Your task to perform on an android device: change the upload size in google photos Image 0: 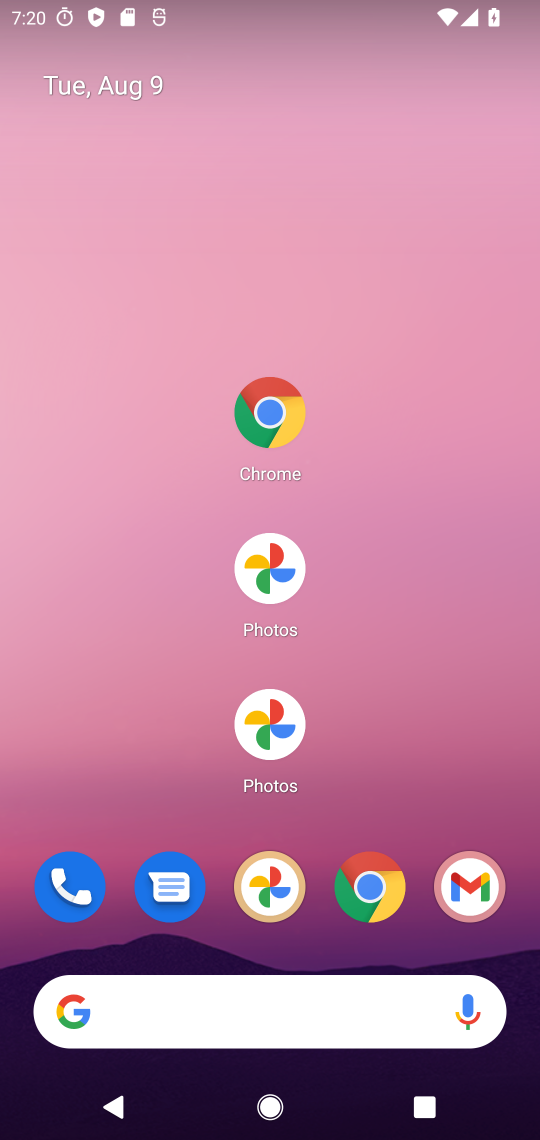
Step 0: drag from (253, 964) to (243, 195)
Your task to perform on an android device: change the upload size in google photos Image 1: 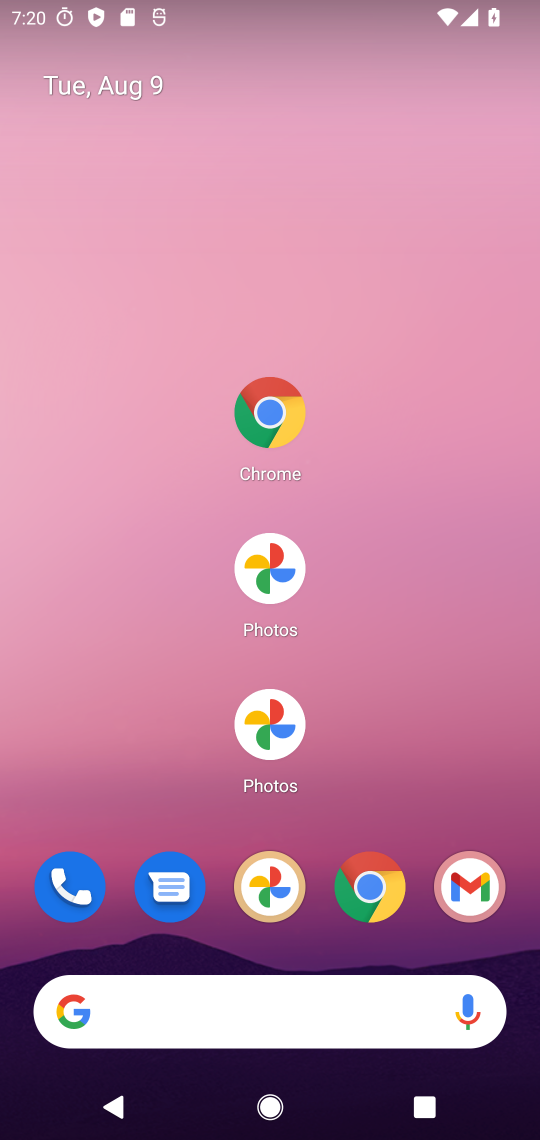
Step 1: drag from (444, 912) to (355, 192)
Your task to perform on an android device: change the upload size in google photos Image 2: 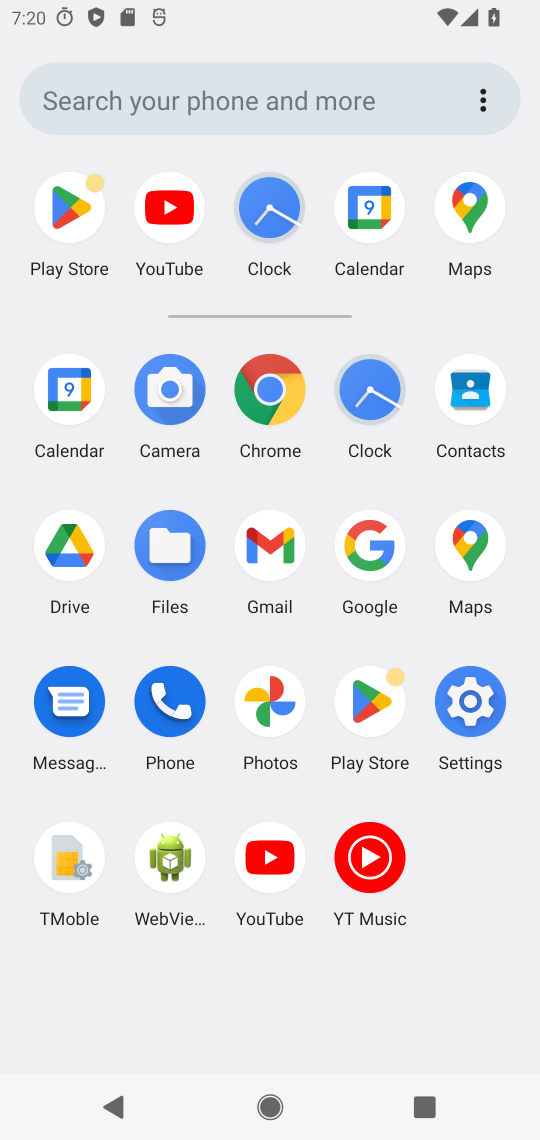
Step 2: click (277, 711)
Your task to perform on an android device: change the upload size in google photos Image 3: 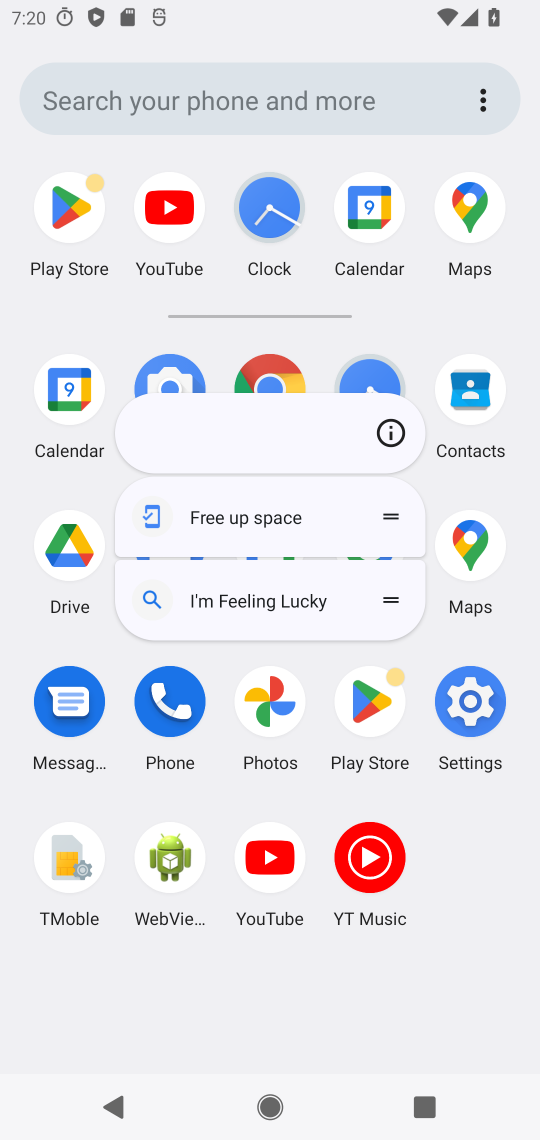
Step 3: click (270, 711)
Your task to perform on an android device: change the upload size in google photos Image 4: 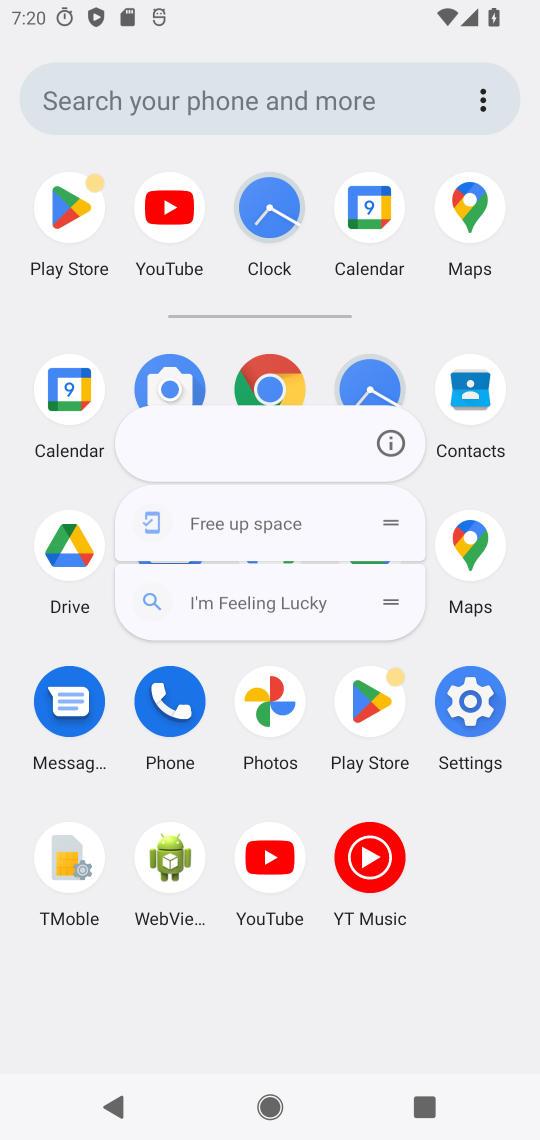
Step 4: click (270, 713)
Your task to perform on an android device: change the upload size in google photos Image 5: 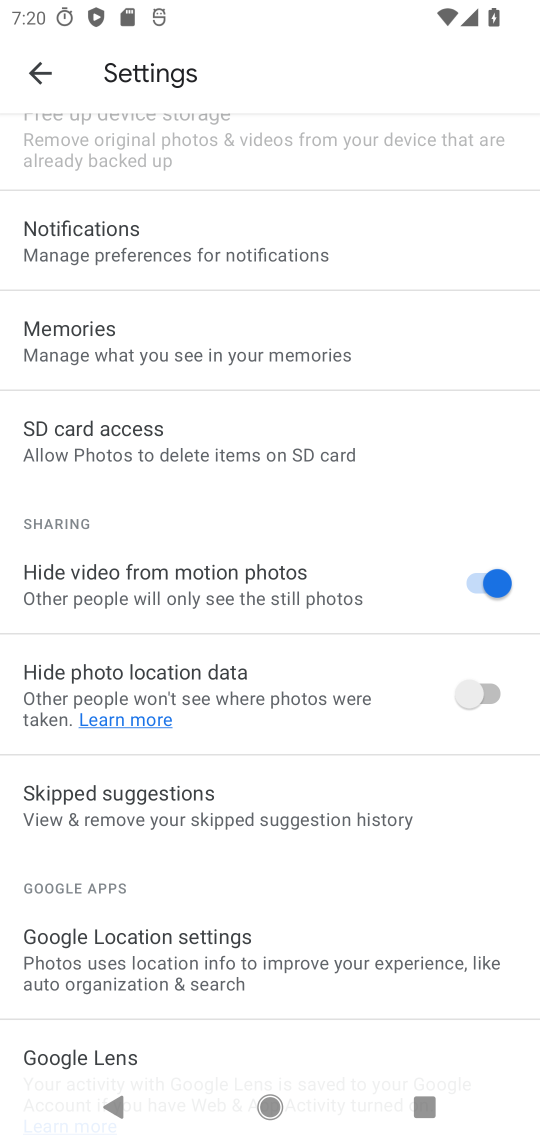
Step 5: drag from (128, 403) to (180, 803)
Your task to perform on an android device: change the upload size in google photos Image 6: 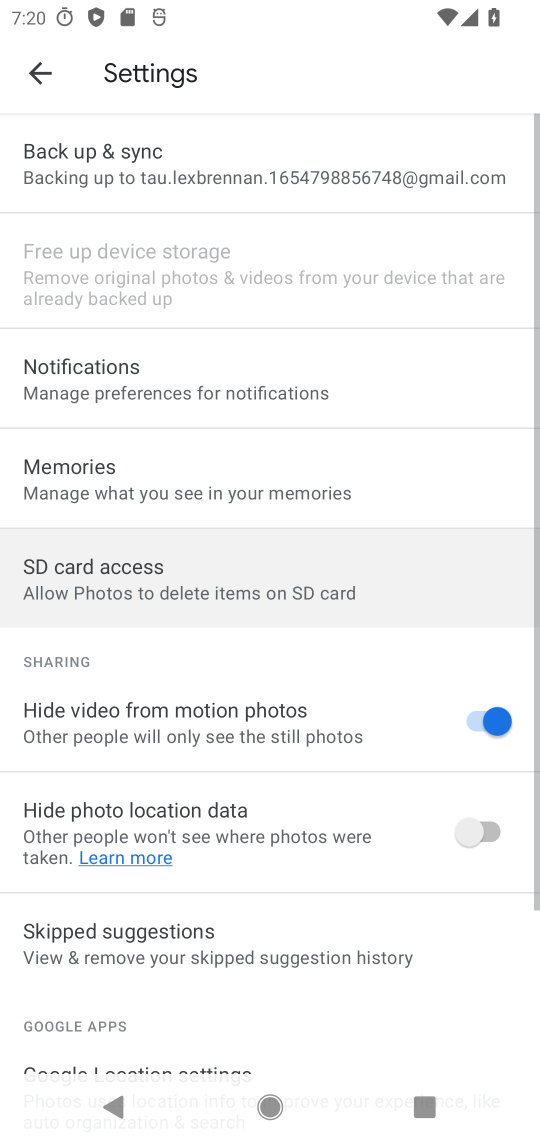
Step 6: drag from (184, 951) to (221, 882)
Your task to perform on an android device: change the upload size in google photos Image 7: 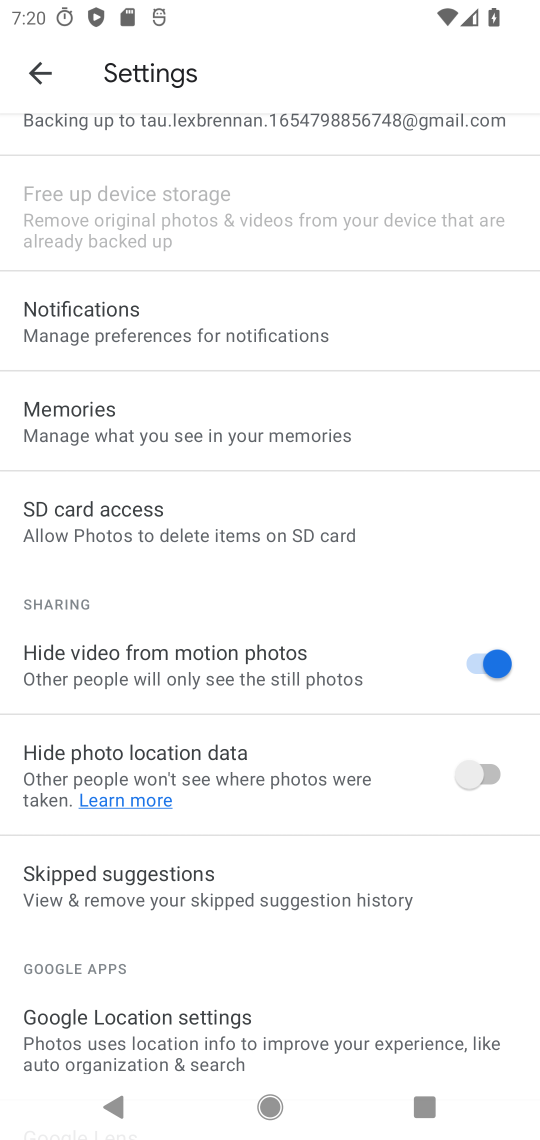
Step 7: drag from (158, 440) to (241, 942)
Your task to perform on an android device: change the upload size in google photos Image 8: 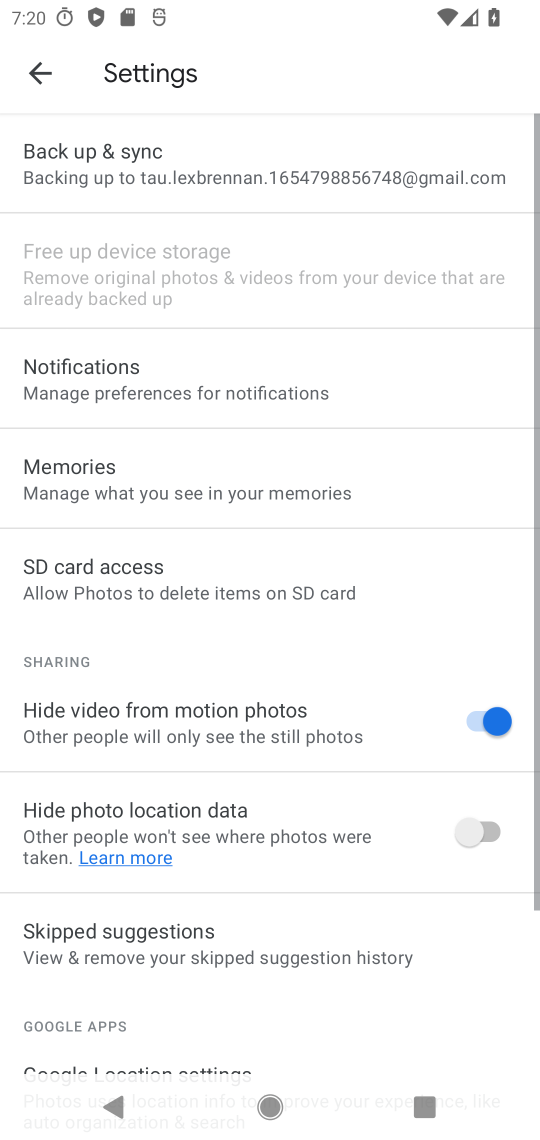
Step 8: drag from (147, 711) to (205, 963)
Your task to perform on an android device: change the upload size in google photos Image 9: 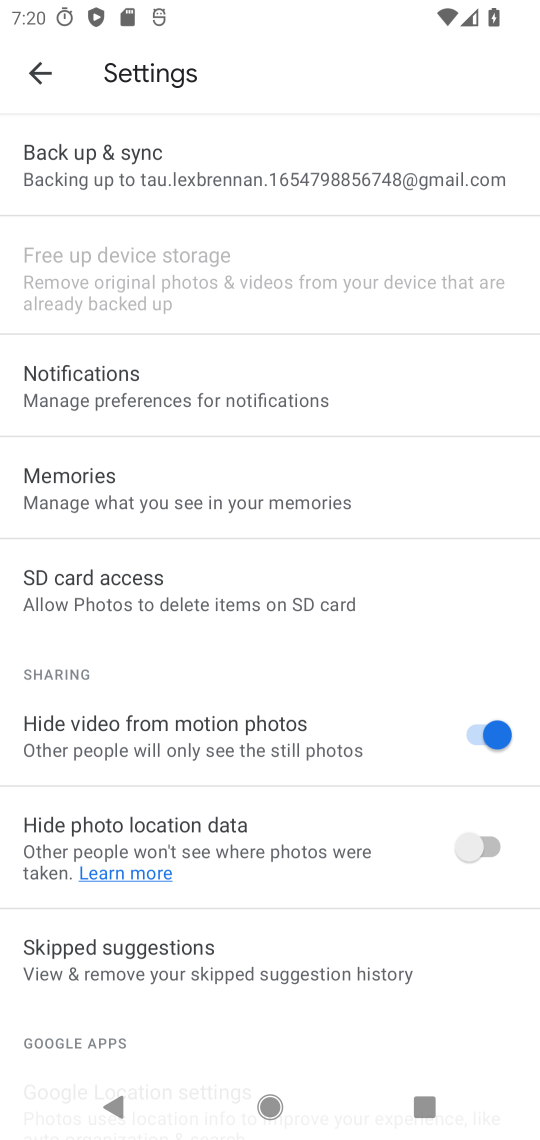
Step 9: drag from (195, 975) to (242, 1030)
Your task to perform on an android device: change the upload size in google photos Image 10: 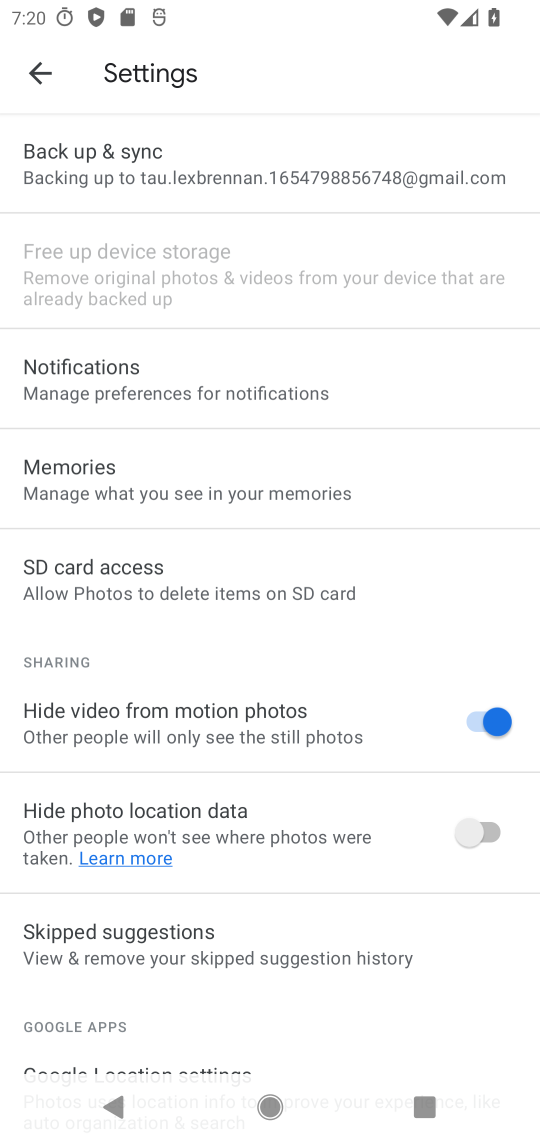
Step 10: drag from (184, 814) to (184, 893)
Your task to perform on an android device: change the upload size in google photos Image 11: 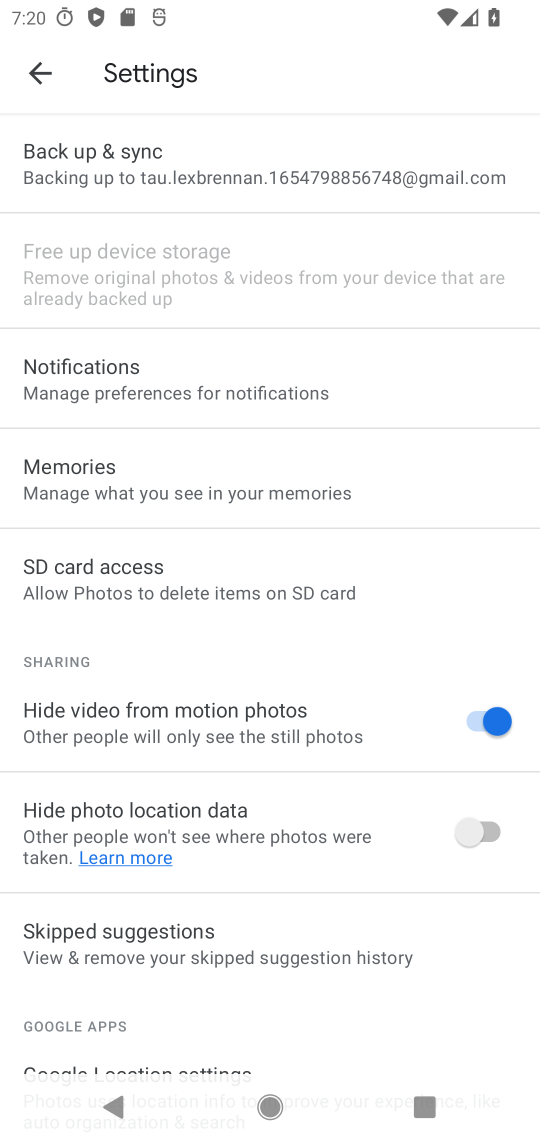
Step 11: click (115, 165)
Your task to perform on an android device: change the upload size in google photos Image 12: 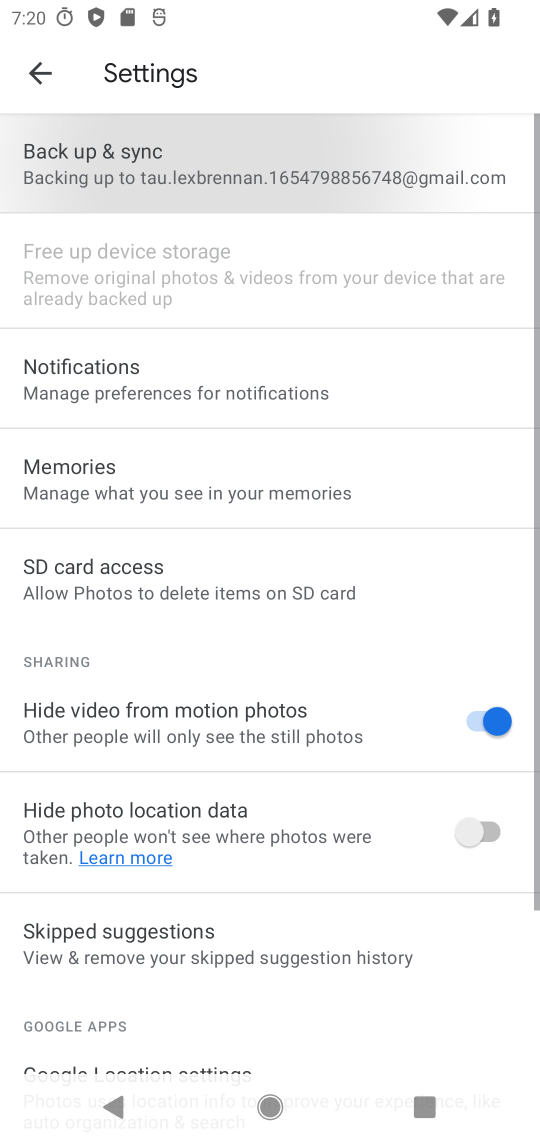
Step 12: click (123, 167)
Your task to perform on an android device: change the upload size in google photos Image 13: 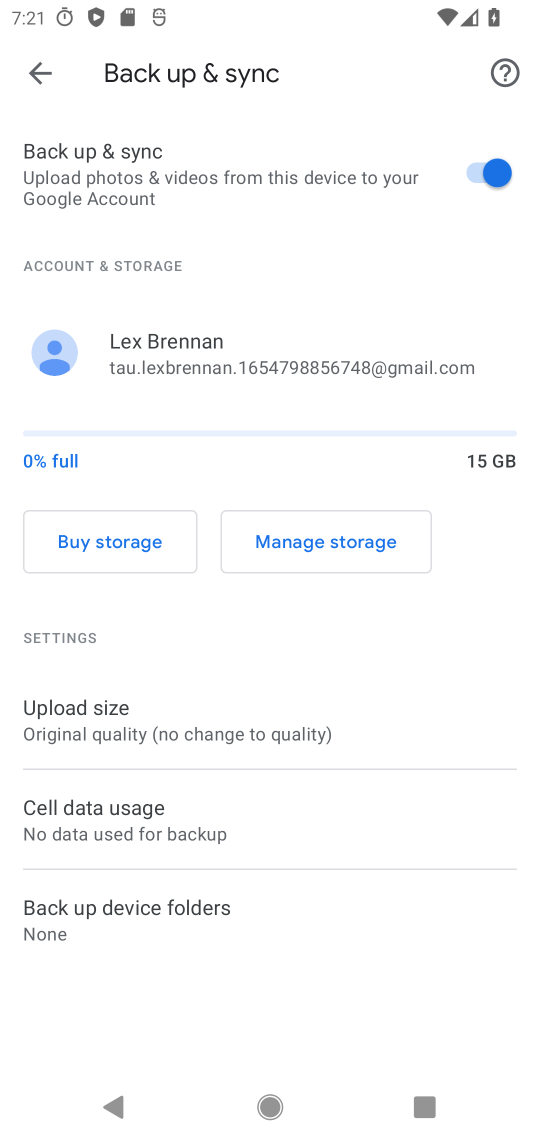
Step 13: click (70, 721)
Your task to perform on an android device: change the upload size in google photos Image 14: 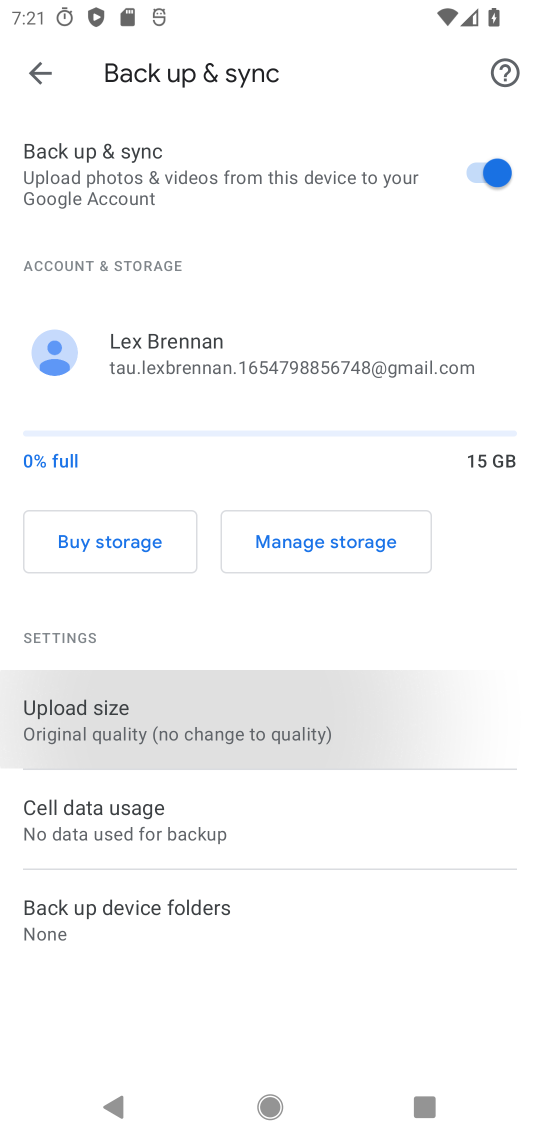
Step 14: click (70, 719)
Your task to perform on an android device: change the upload size in google photos Image 15: 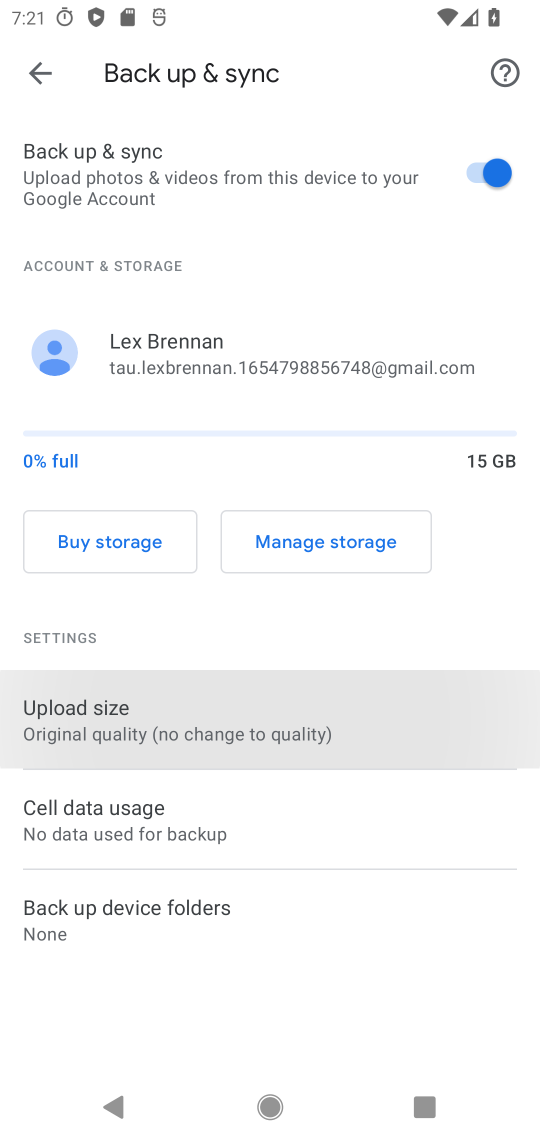
Step 15: click (70, 719)
Your task to perform on an android device: change the upload size in google photos Image 16: 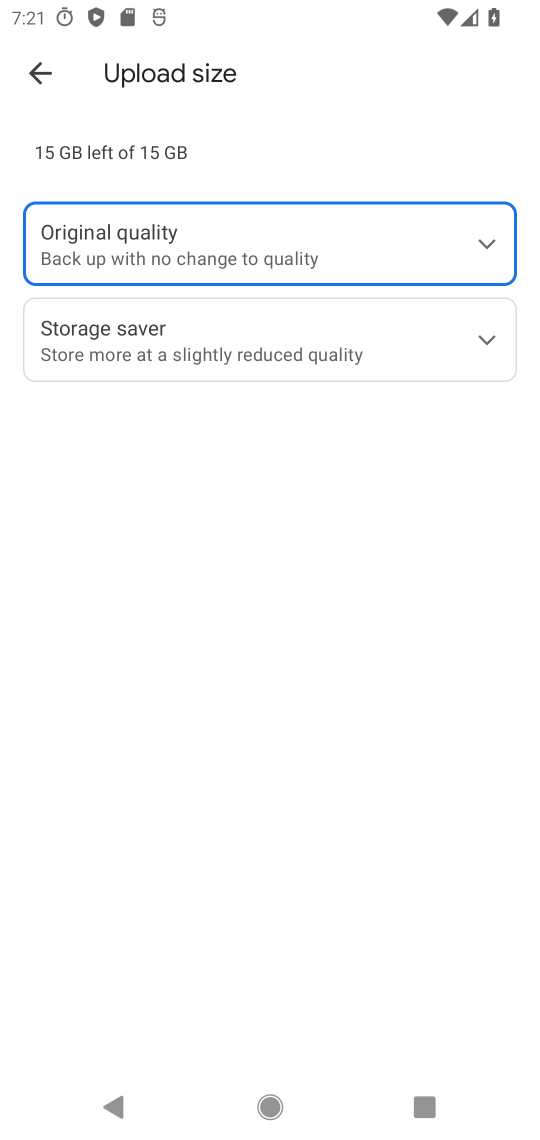
Step 16: click (493, 244)
Your task to perform on an android device: change the upload size in google photos Image 17: 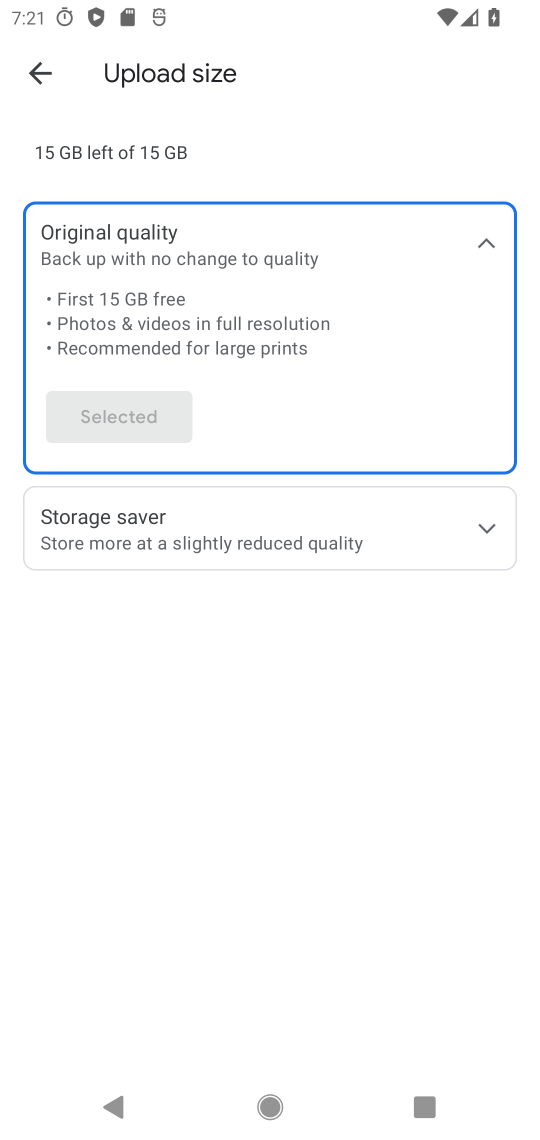
Step 17: click (486, 533)
Your task to perform on an android device: change the upload size in google photos Image 18: 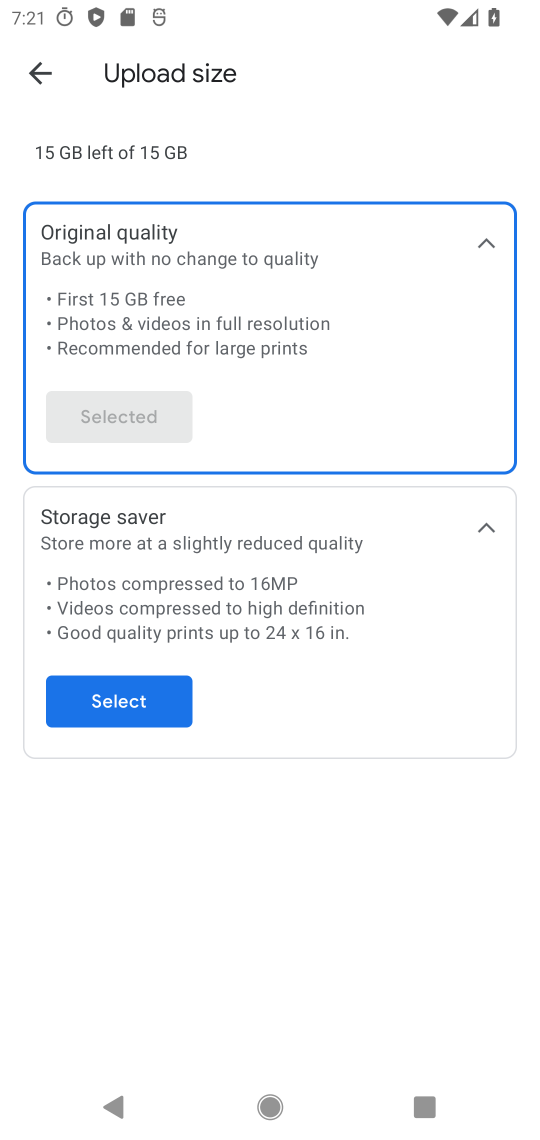
Step 18: click (136, 695)
Your task to perform on an android device: change the upload size in google photos Image 19: 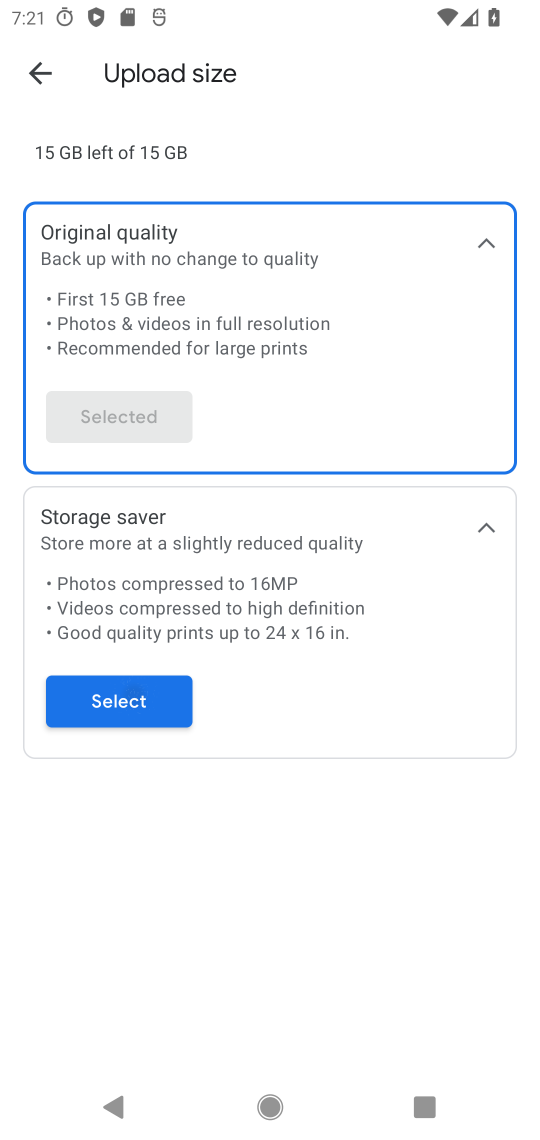
Step 19: click (137, 696)
Your task to perform on an android device: change the upload size in google photos Image 20: 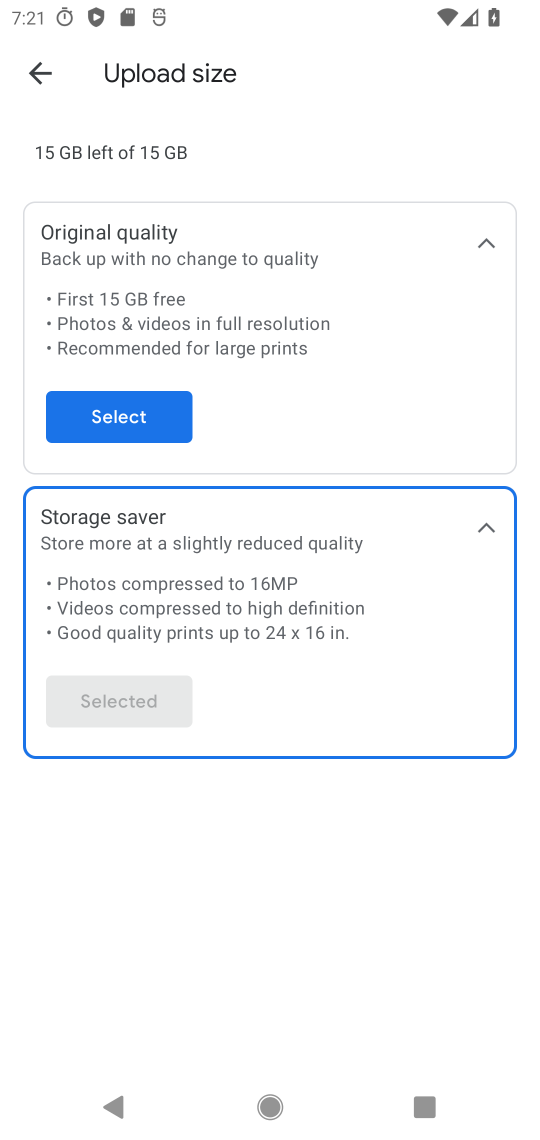
Step 20: click (131, 436)
Your task to perform on an android device: change the upload size in google photos Image 21: 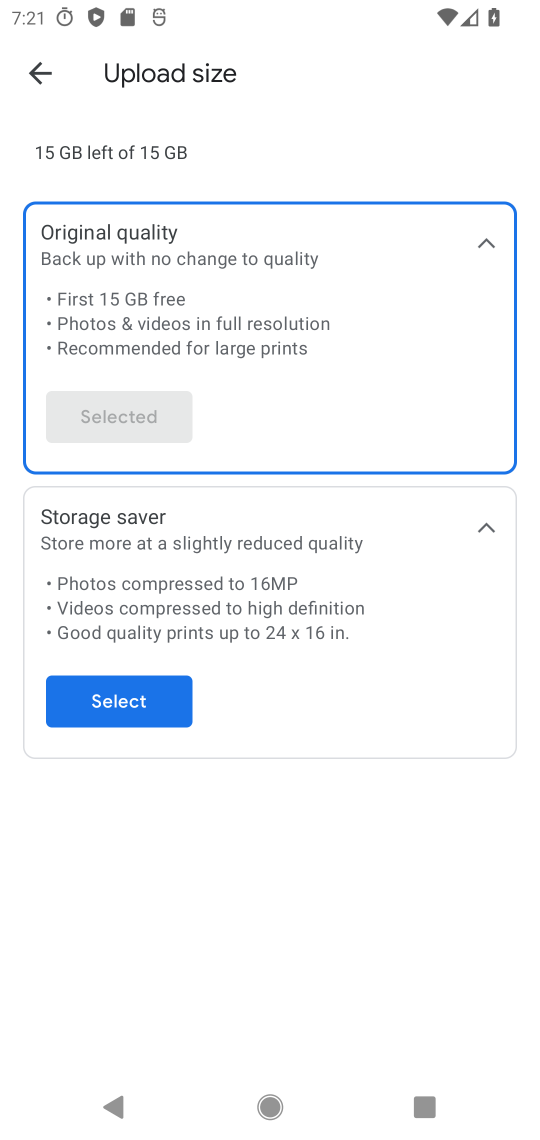
Step 21: task complete